Your task to perform on an android device: Go to Wikipedia Image 0: 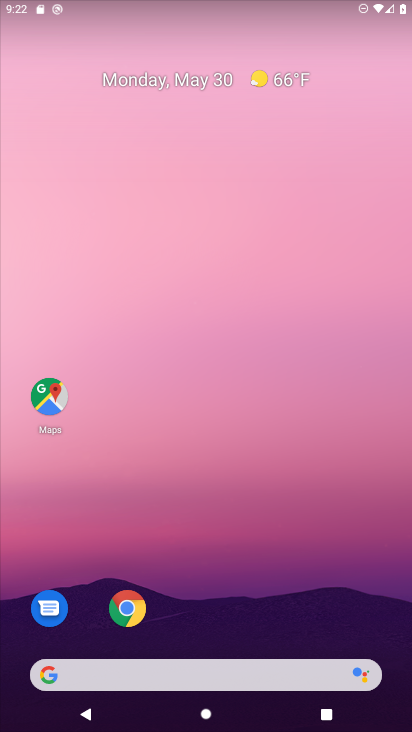
Step 0: click (128, 613)
Your task to perform on an android device: Go to Wikipedia Image 1: 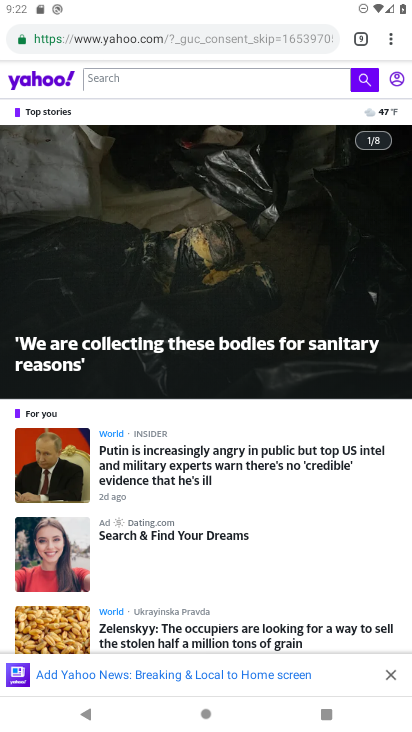
Step 1: click (392, 44)
Your task to perform on an android device: Go to Wikipedia Image 2: 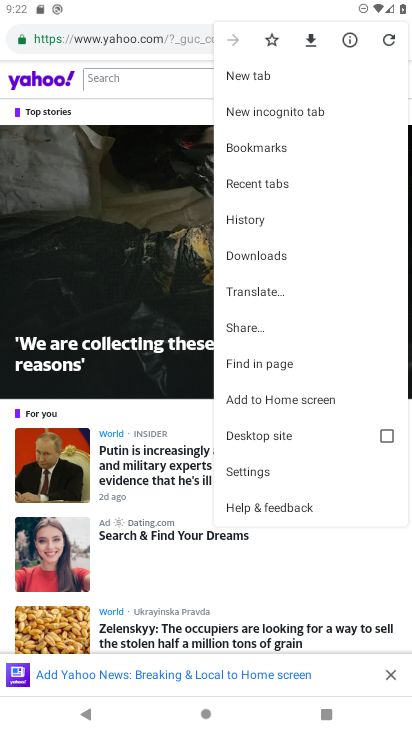
Step 2: click (234, 77)
Your task to perform on an android device: Go to Wikipedia Image 3: 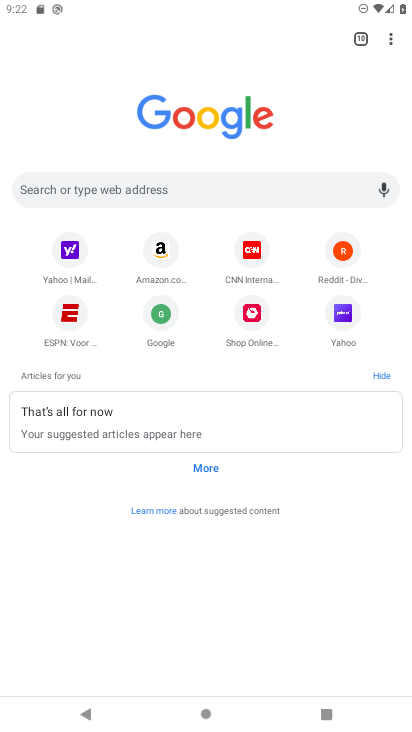
Step 3: click (147, 195)
Your task to perform on an android device: Go to Wikipedia Image 4: 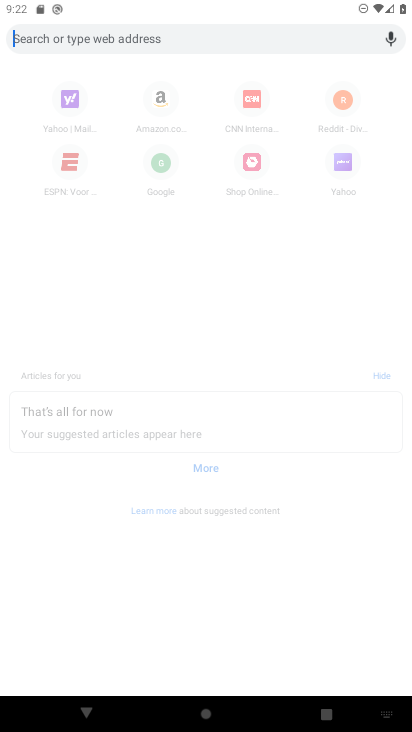
Step 4: type "WIkipedia "
Your task to perform on an android device: Go to Wikipedia Image 5: 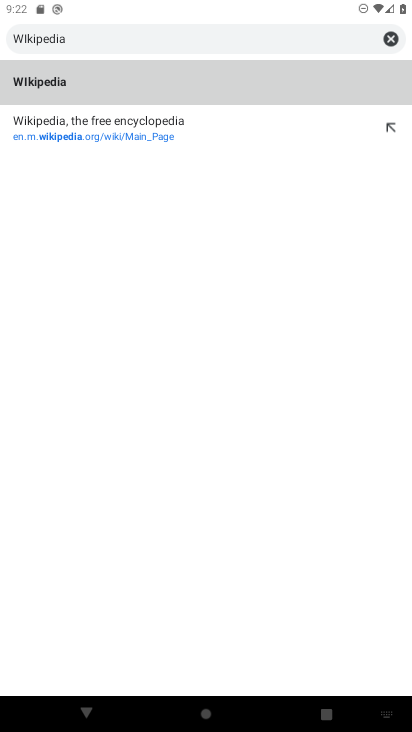
Step 5: click (53, 78)
Your task to perform on an android device: Go to Wikipedia Image 6: 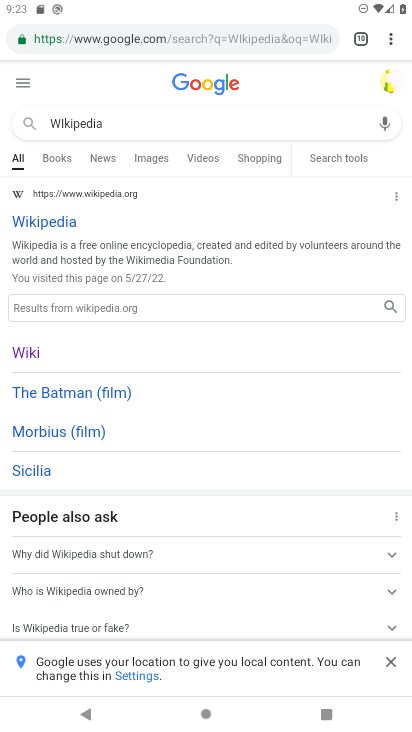
Step 6: click (49, 218)
Your task to perform on an android device: Go to Wikipedia Image 7: 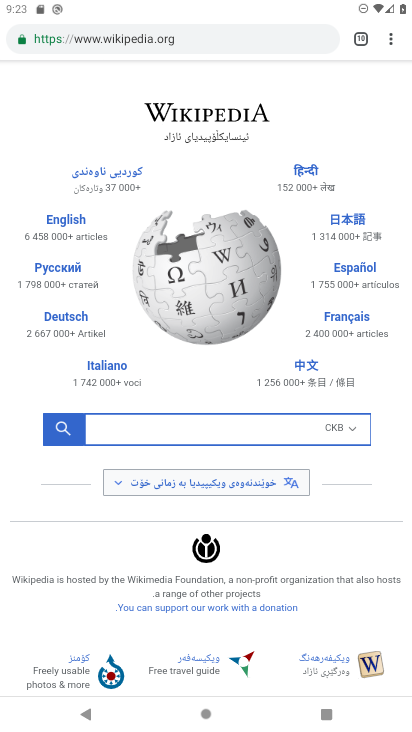
Step 7: task complete